Your task to perform on an android device: turn on notifications settings in the gmail app Image 0: 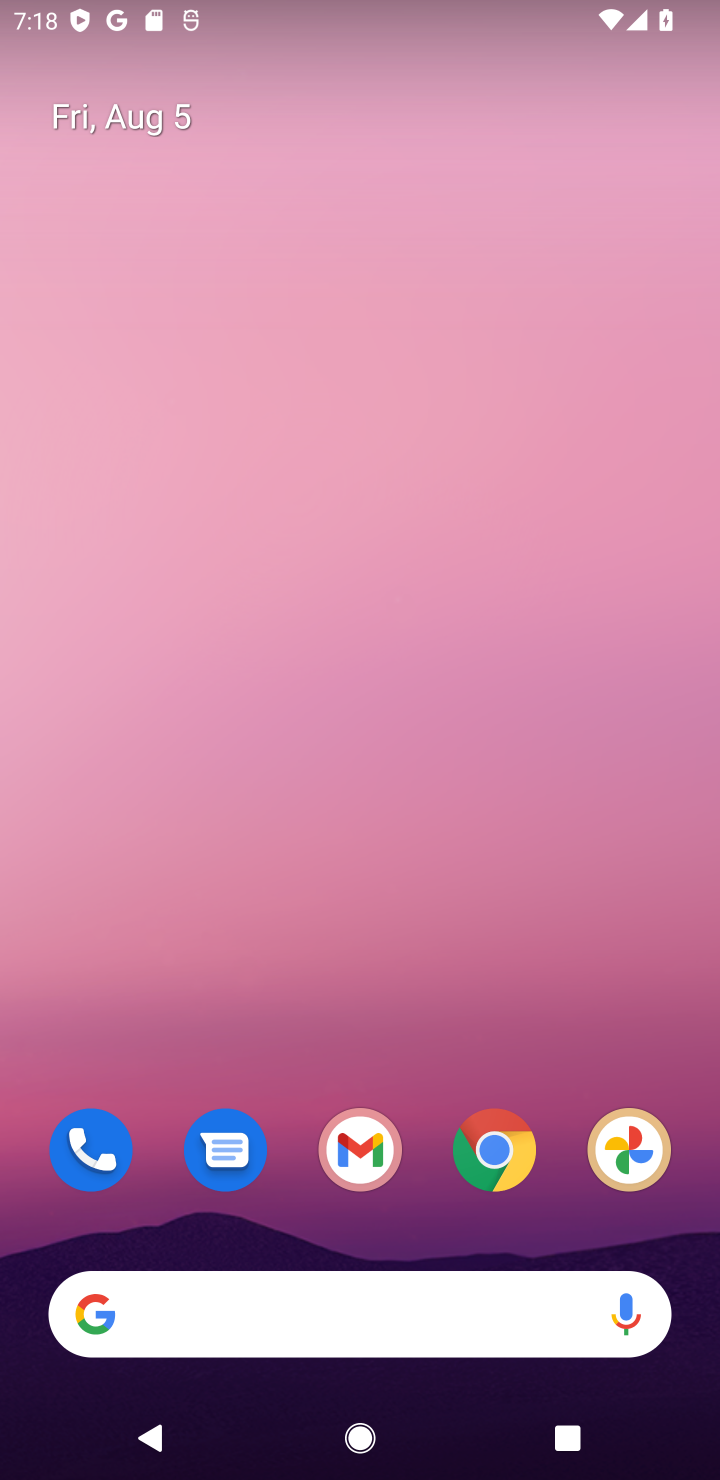
Step 0: press home button
Your task to perform on an android device: turn on notifications settings in the gmail app Image 1: 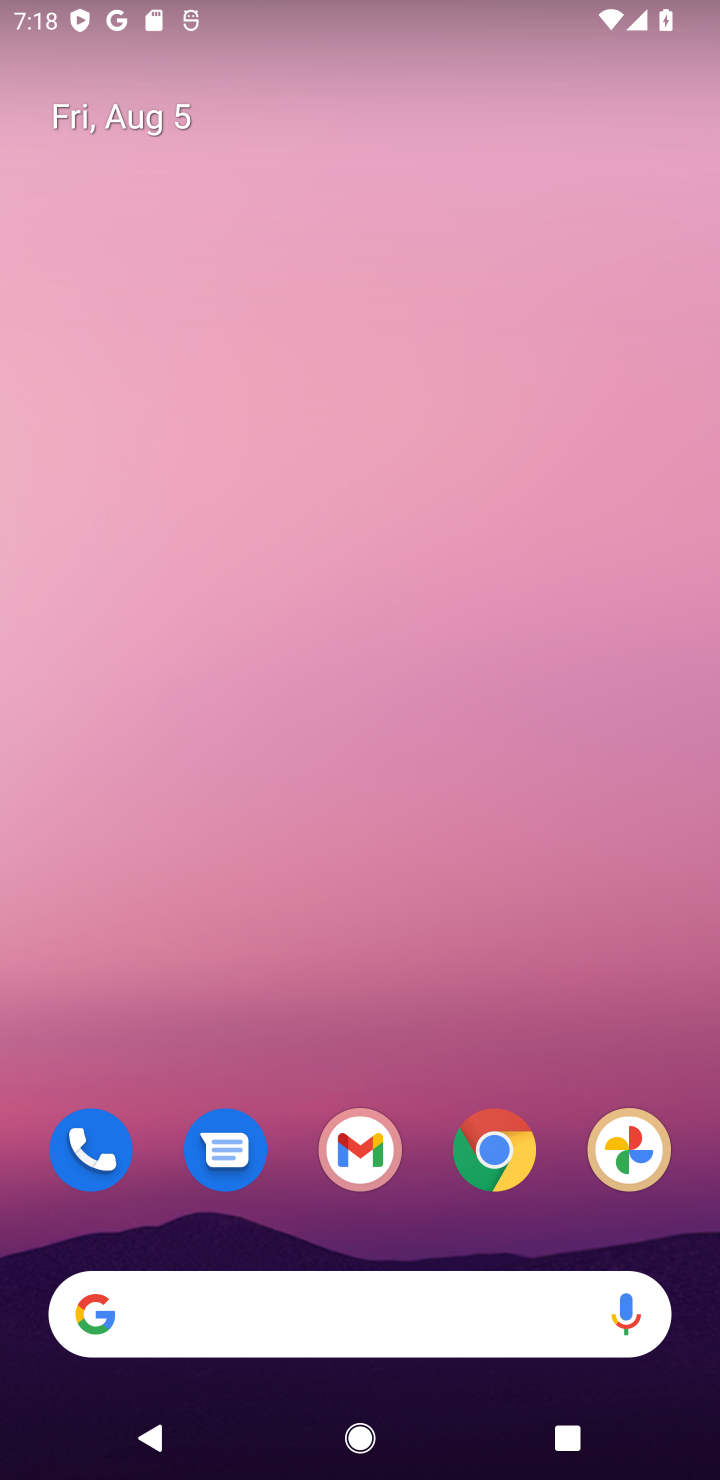
Step 1: drag from (321, 976) to (381, 375)
Your task to perform on an android device: turn on notifications settings in the gmail app Image 2: 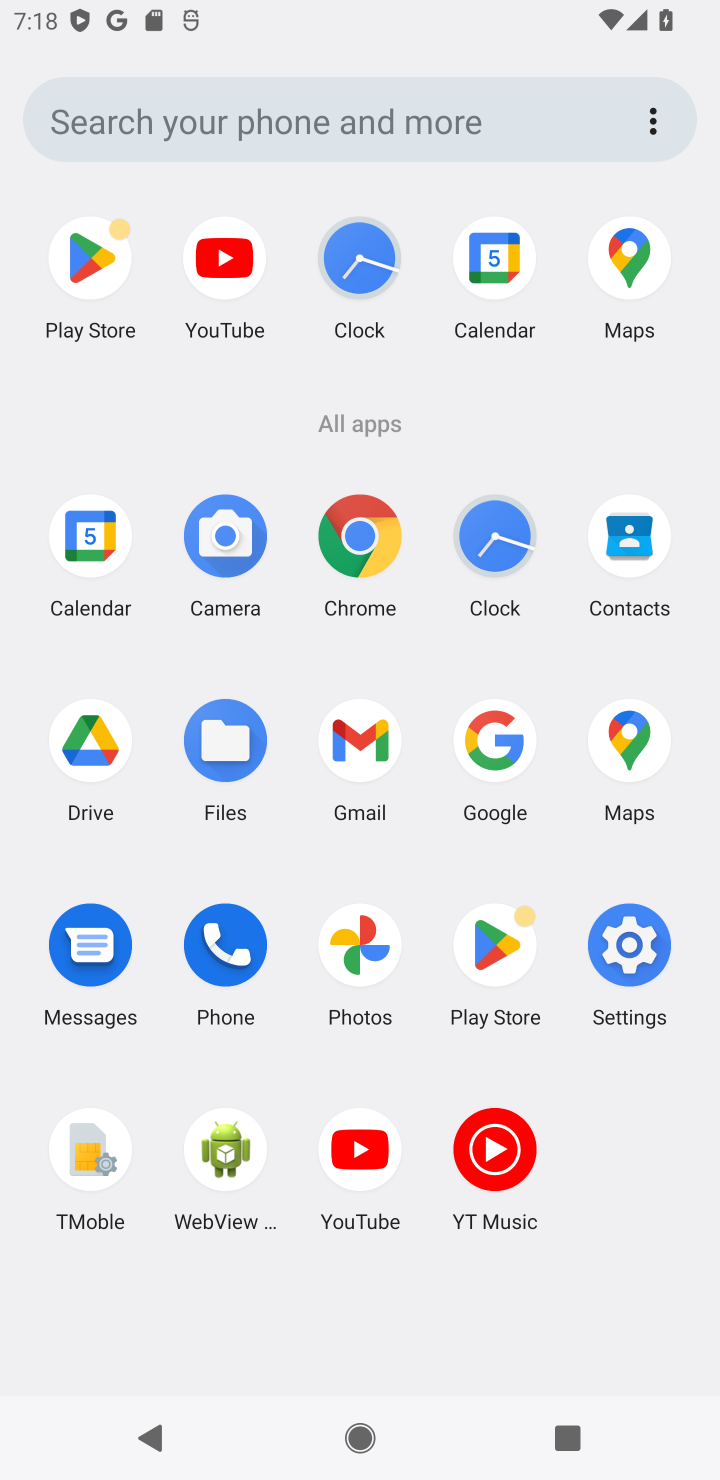
Step 2: click (377, 761)
Your task to perform on an android device: turn on notifications settings in the gmail app Image 3: 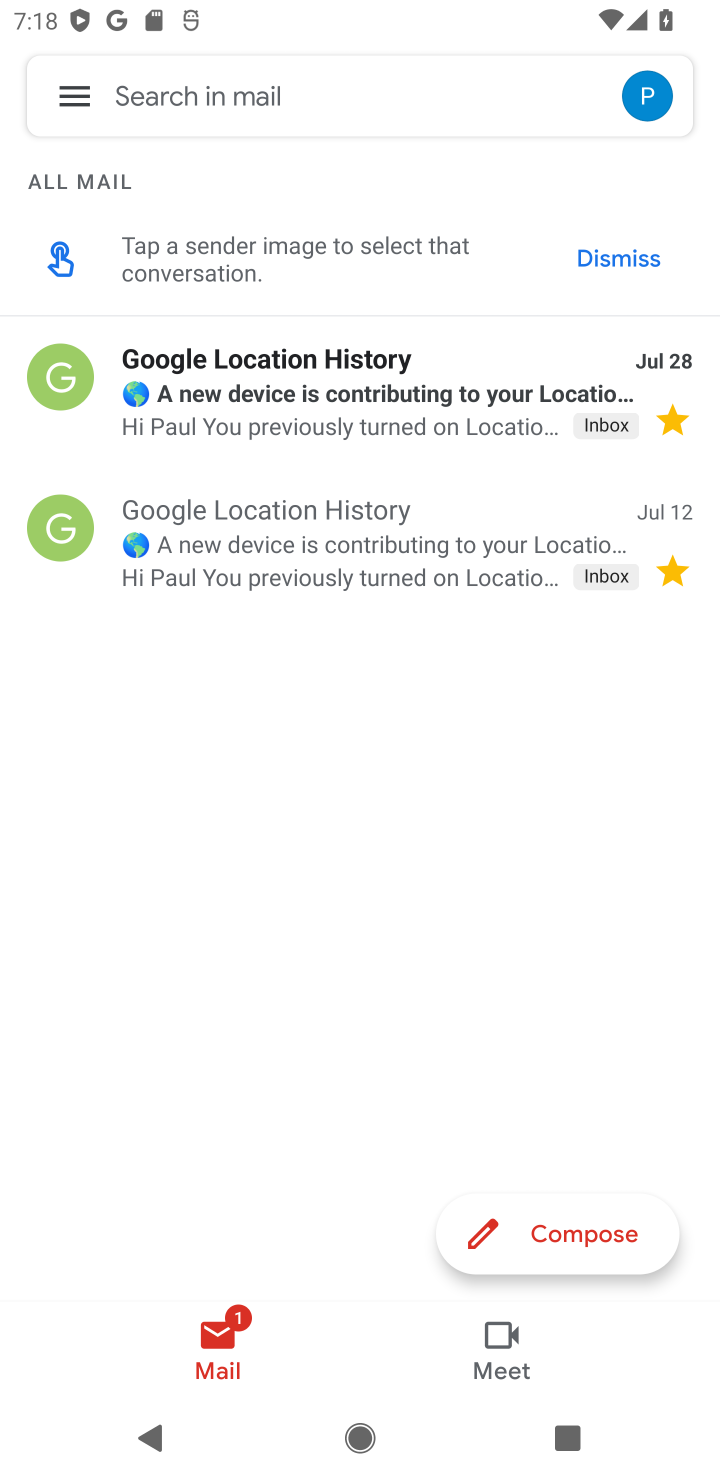
Step 3: click (71, 89)
Your task to perform on an android device: turn on notifications settings in the gmail app Image 4: 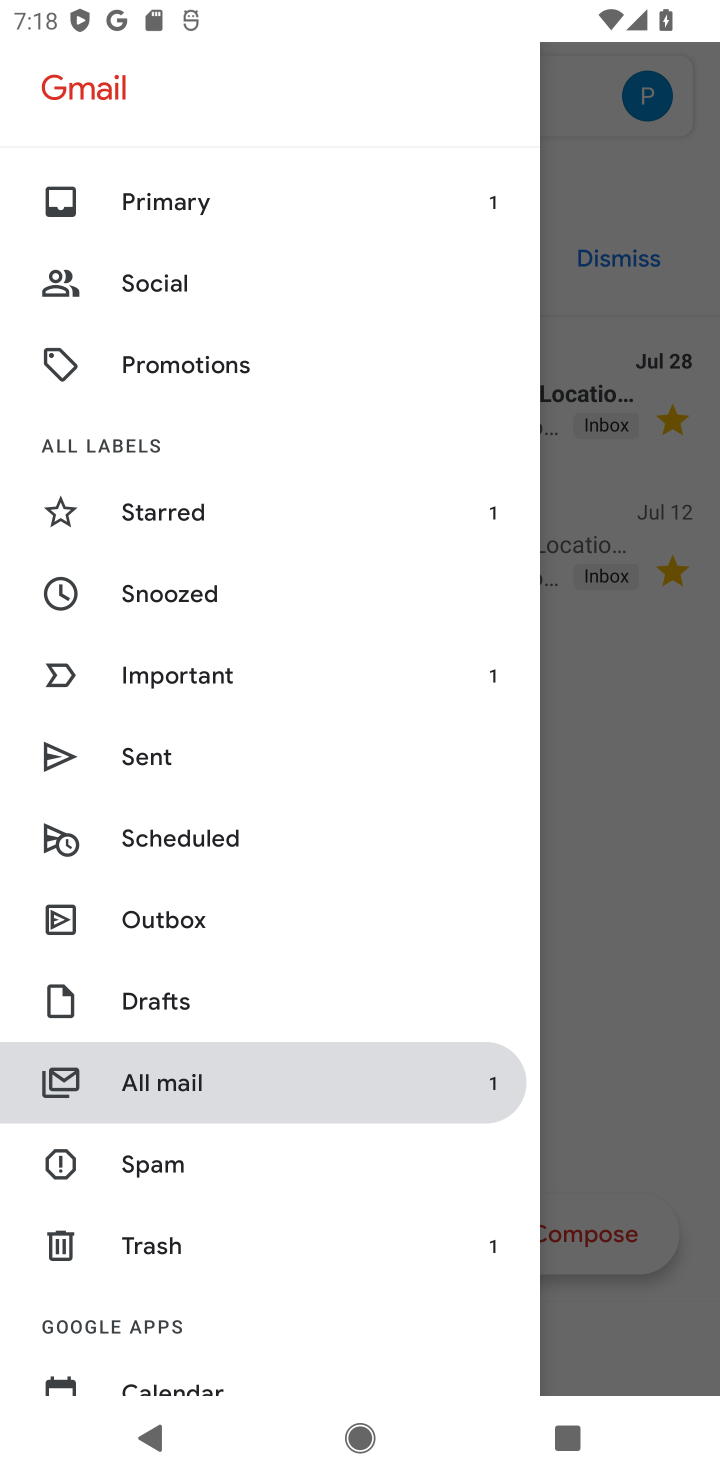
Step 4: drag from (271, 1235) to (319, 751)
Your task to perform on an android device: turn on notifications settings in the gmail app Image 5: 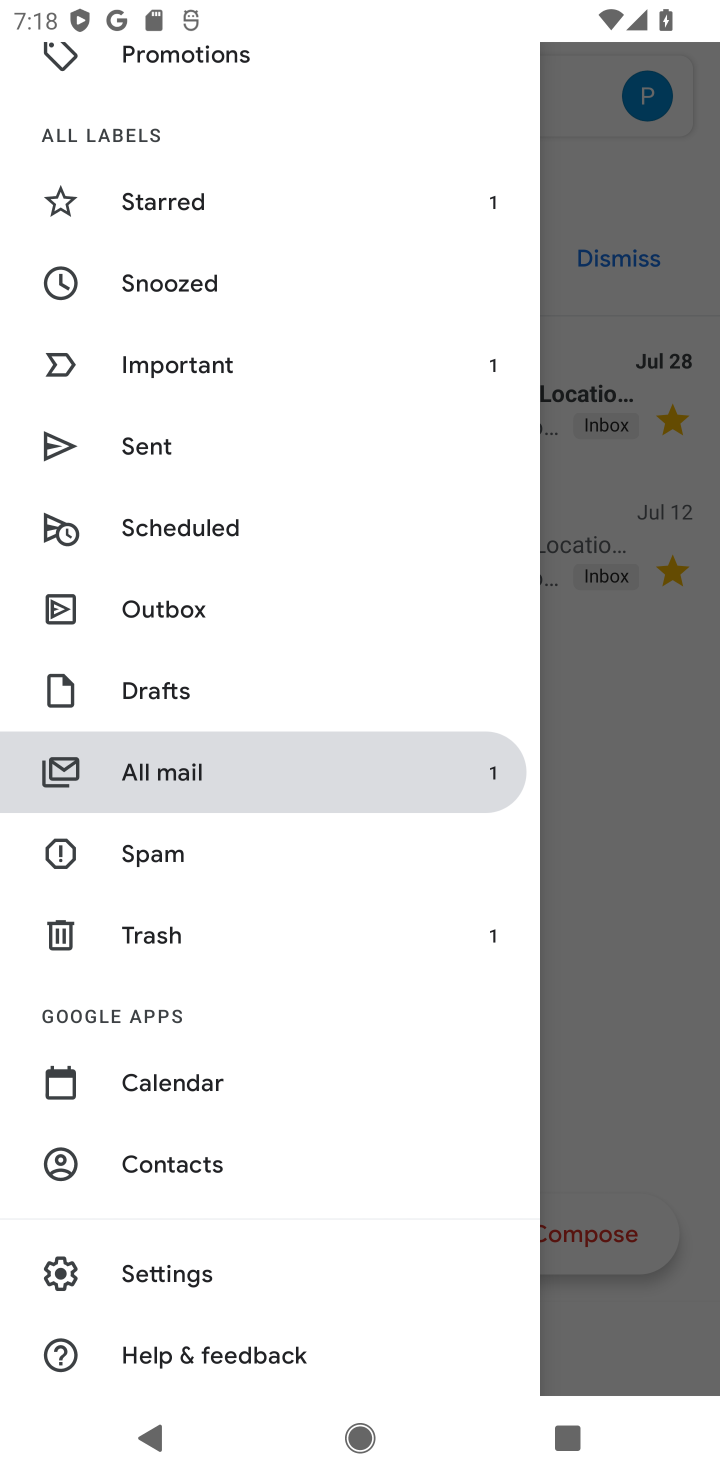
Step 5: drag from (374, 1124) to (381, 734)
Your task to perform on an android device: turn on notifications settings in the gmail app Image 6: 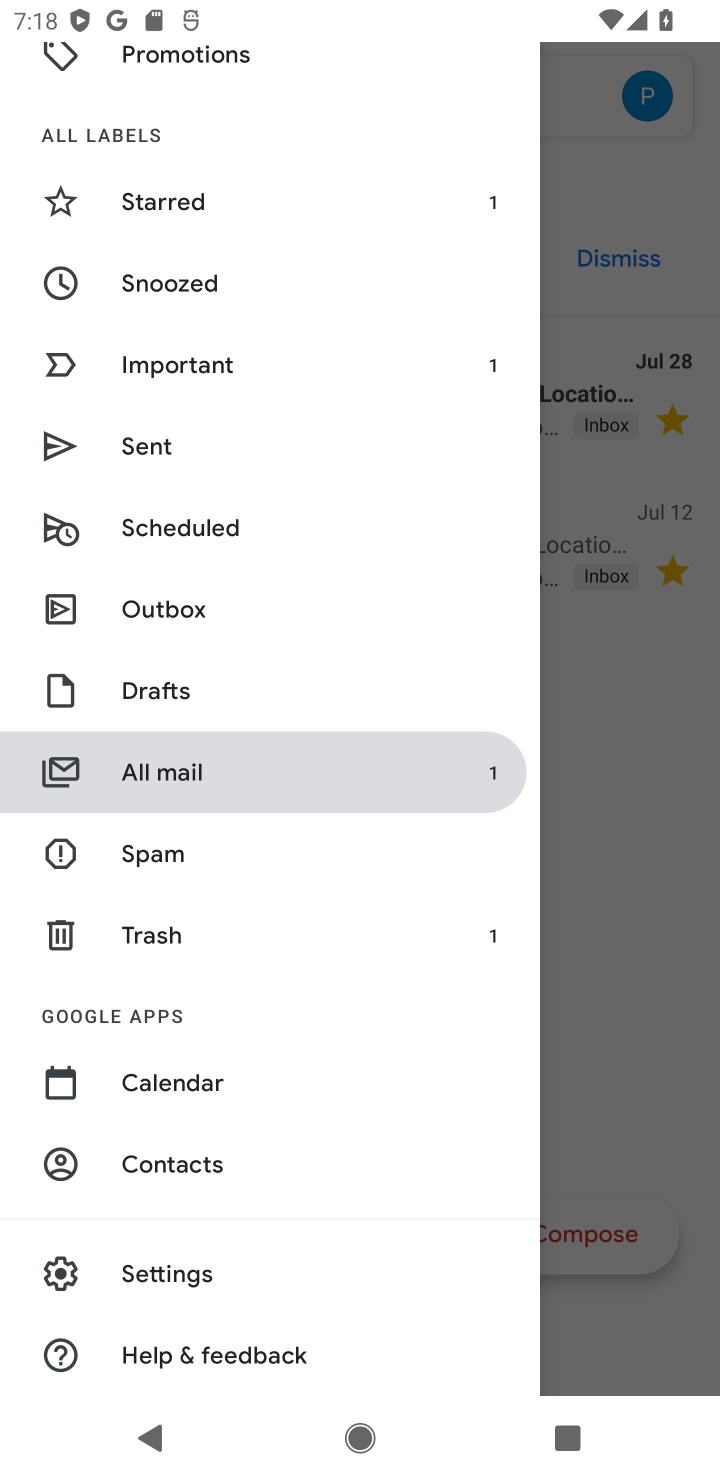
Step 6: click (212, 1271)
Your task to perform on an android device: turn on notifications settings in the gmail app Image 7: 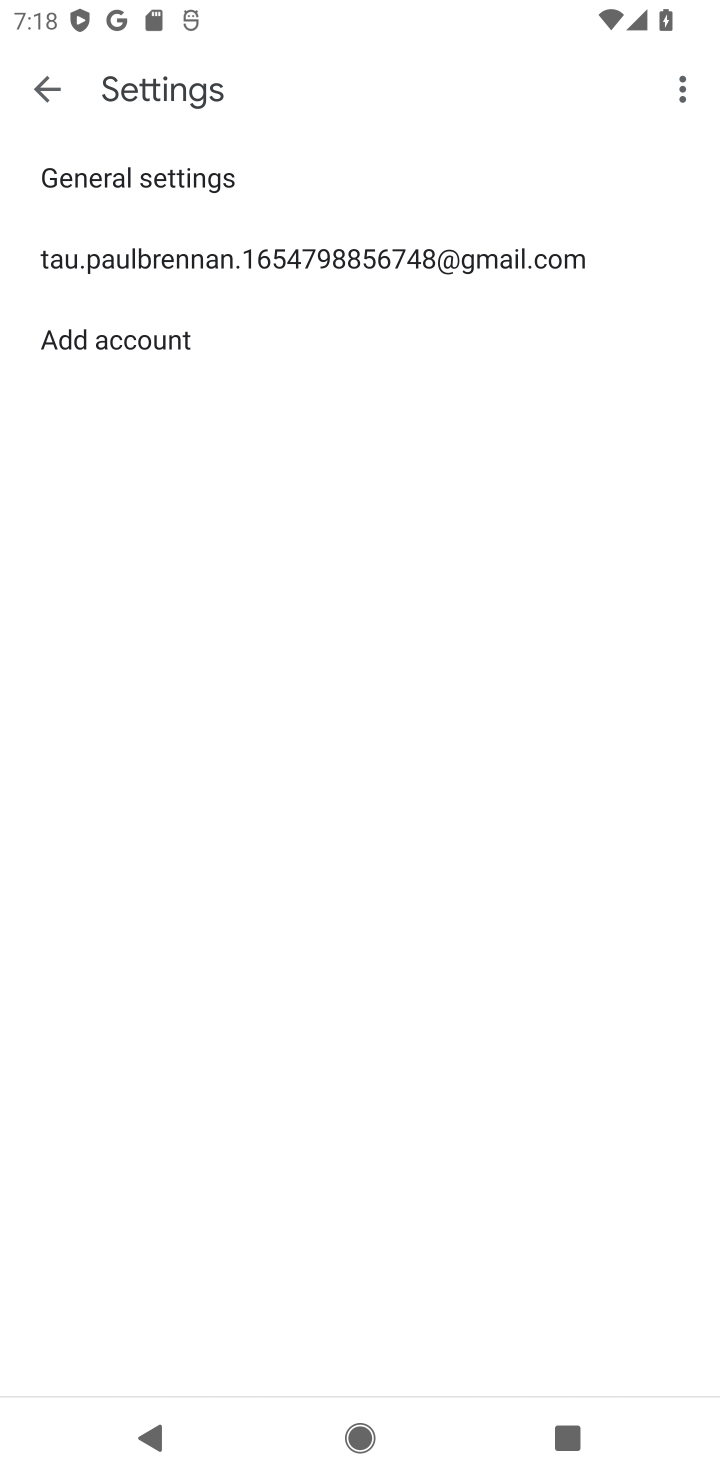
Step 7: click (347, 246)
Your task to perform on an android device: turn on notifications settings in the gmail app Image 8: 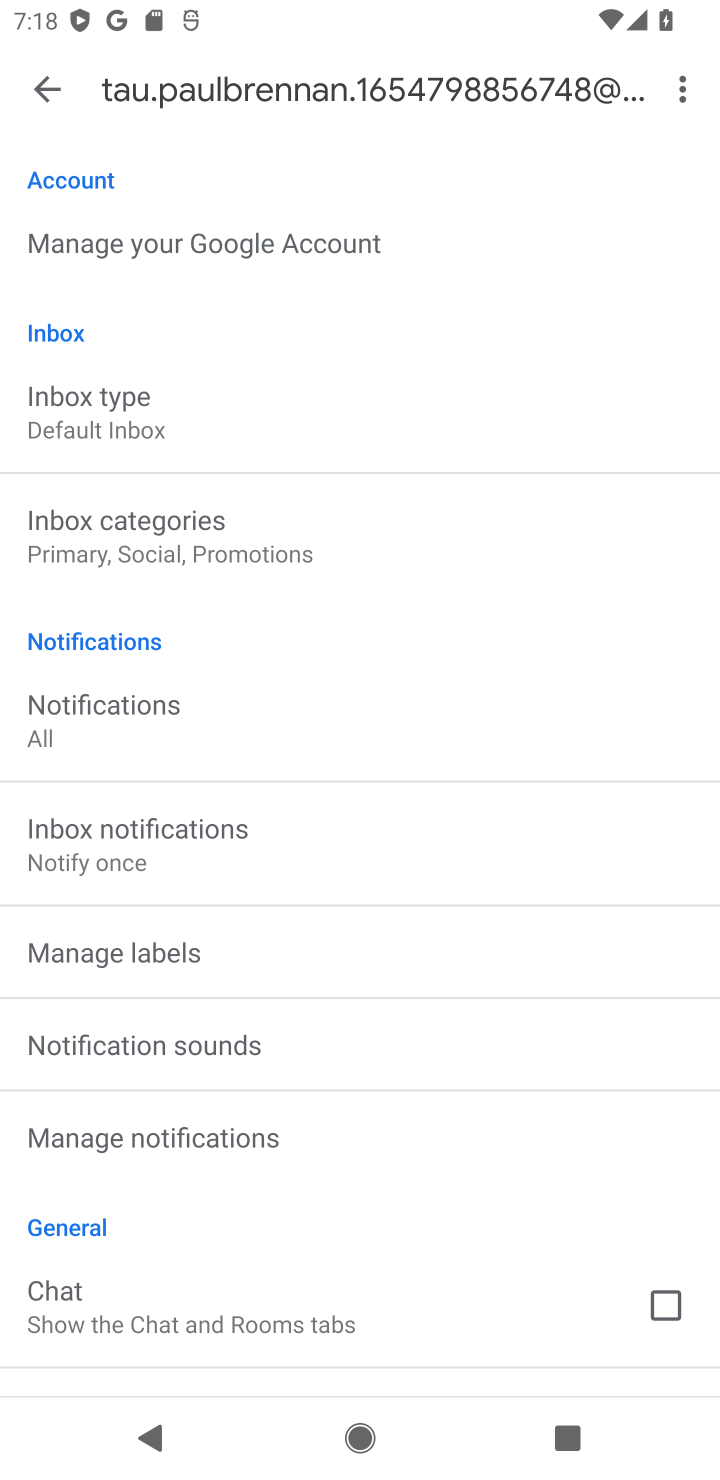
Step 8: drag from (445, 1092) to (445, 587)
Your task to perform on an android device: turn on notifications settings in the gmail app Image 9: 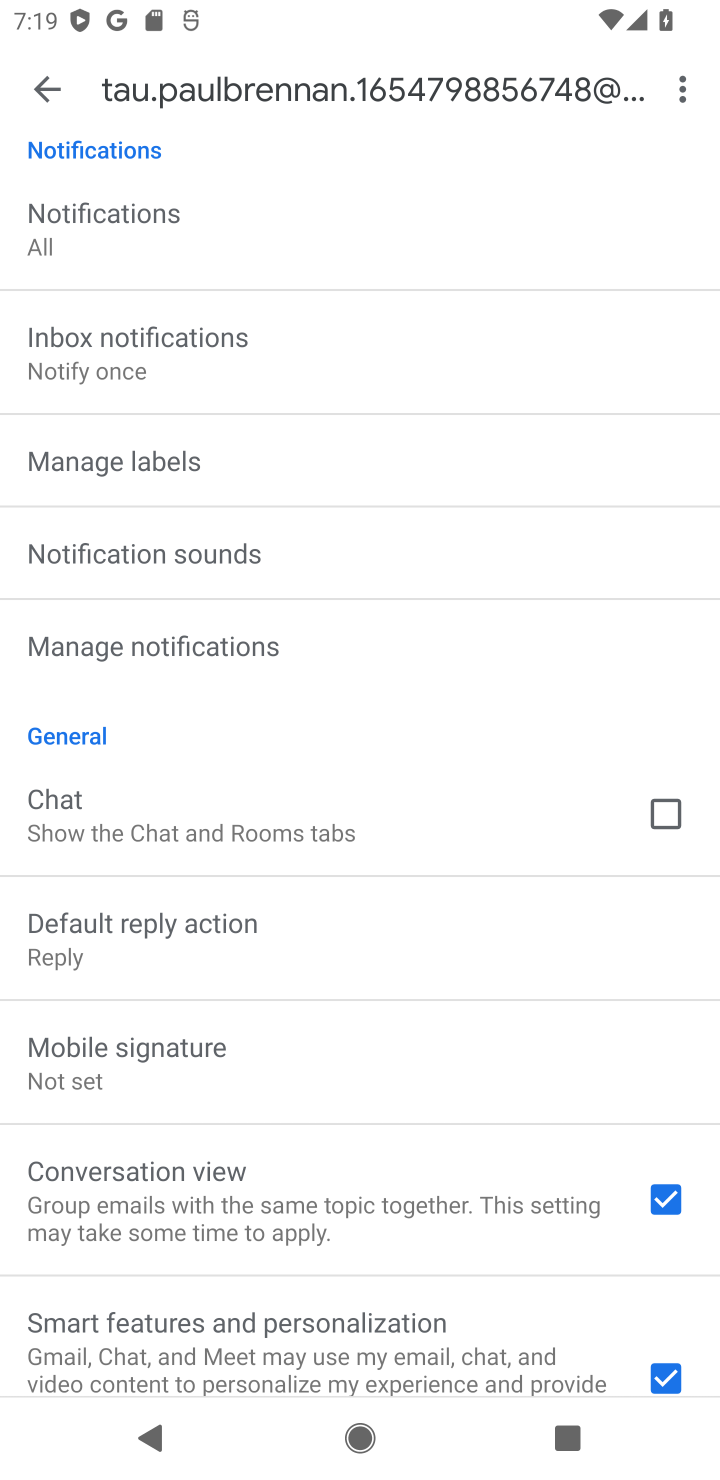
Step 9: drag from (504, 1064) to (499, 557)
Your task to perform on an android device: turn on notifications settings in the gmail app Image 10: 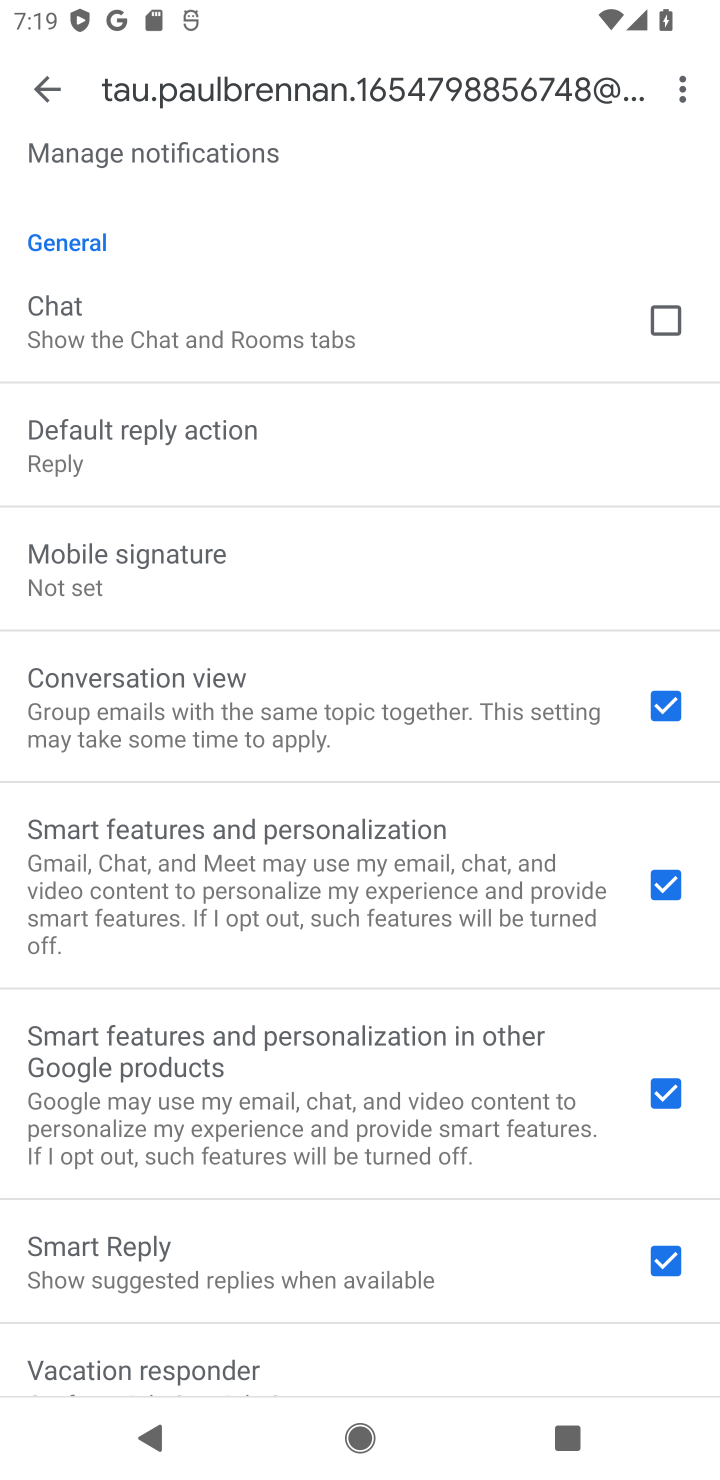
Step 10: drag from (422, 996) to (451, 453)
Your task to perform on an android device: turn on notifications settings in the gmail app Image 11: 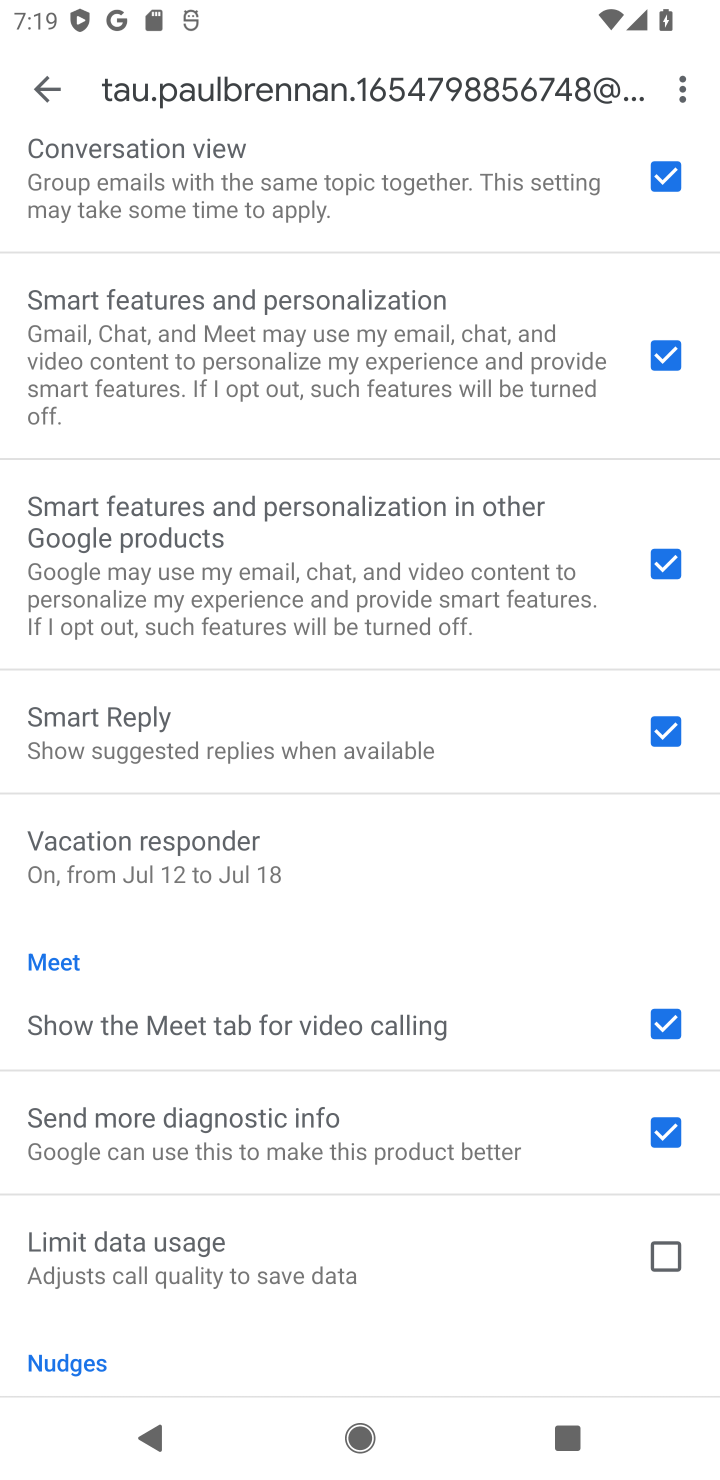
Step 11: drag from (464, 988) to (487, 607)
Your task to perform on an android device: turn on notifications settings in the gmail app Image 12: 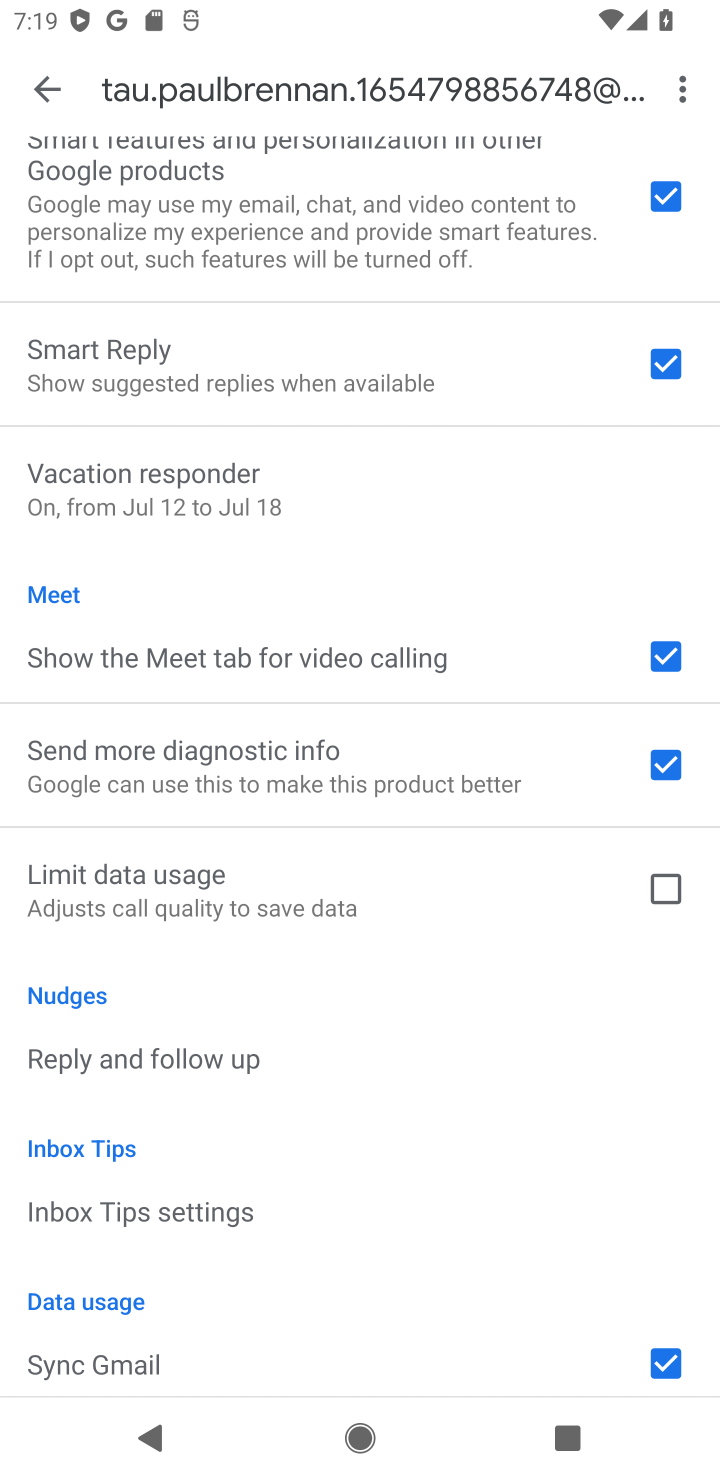
Step 12: drag from (442, 1131) to (473, 745)
Your task to perform on an android device: turn on notifications settings in the gmail app Image 13: 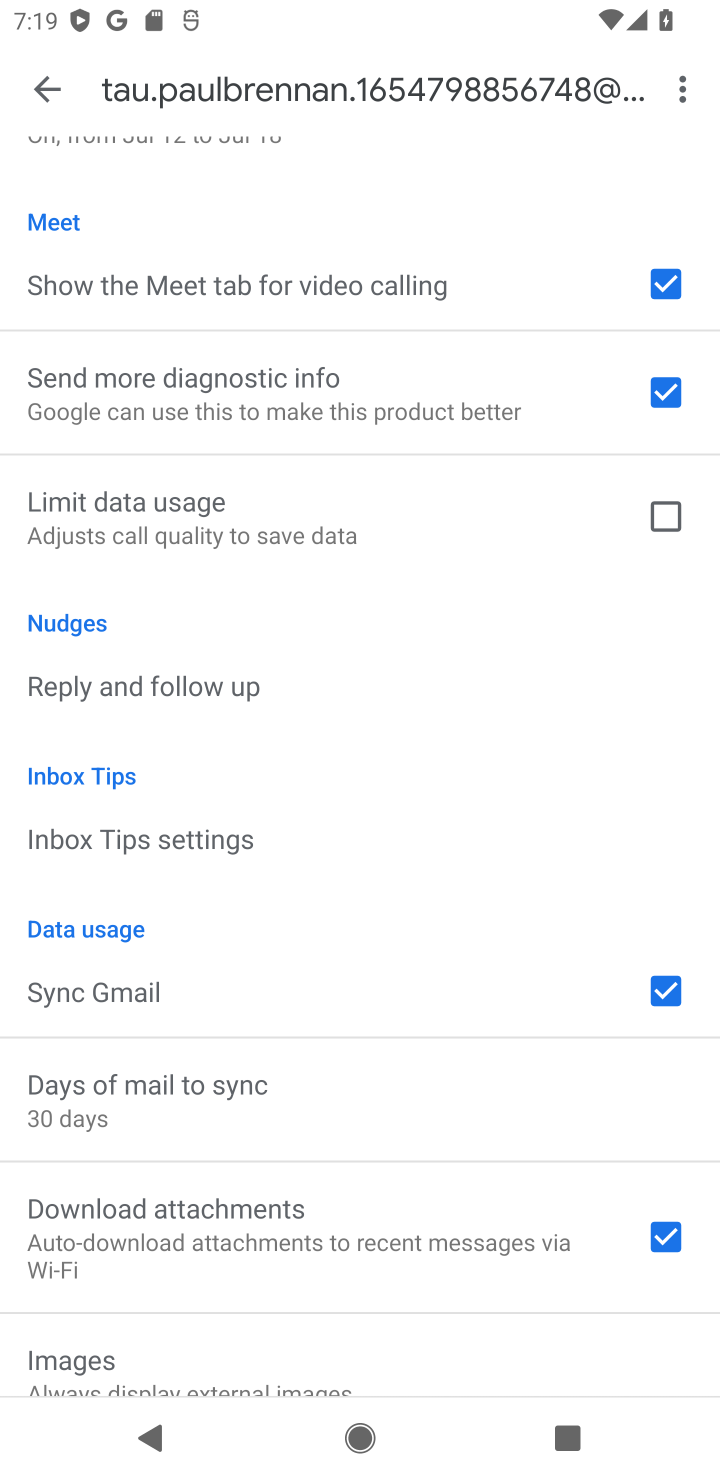
Step 13: drag from (448, 464) to (461, 824)
Your task to perform on an android device: turn on notifications settings in the gmail app Image 14: 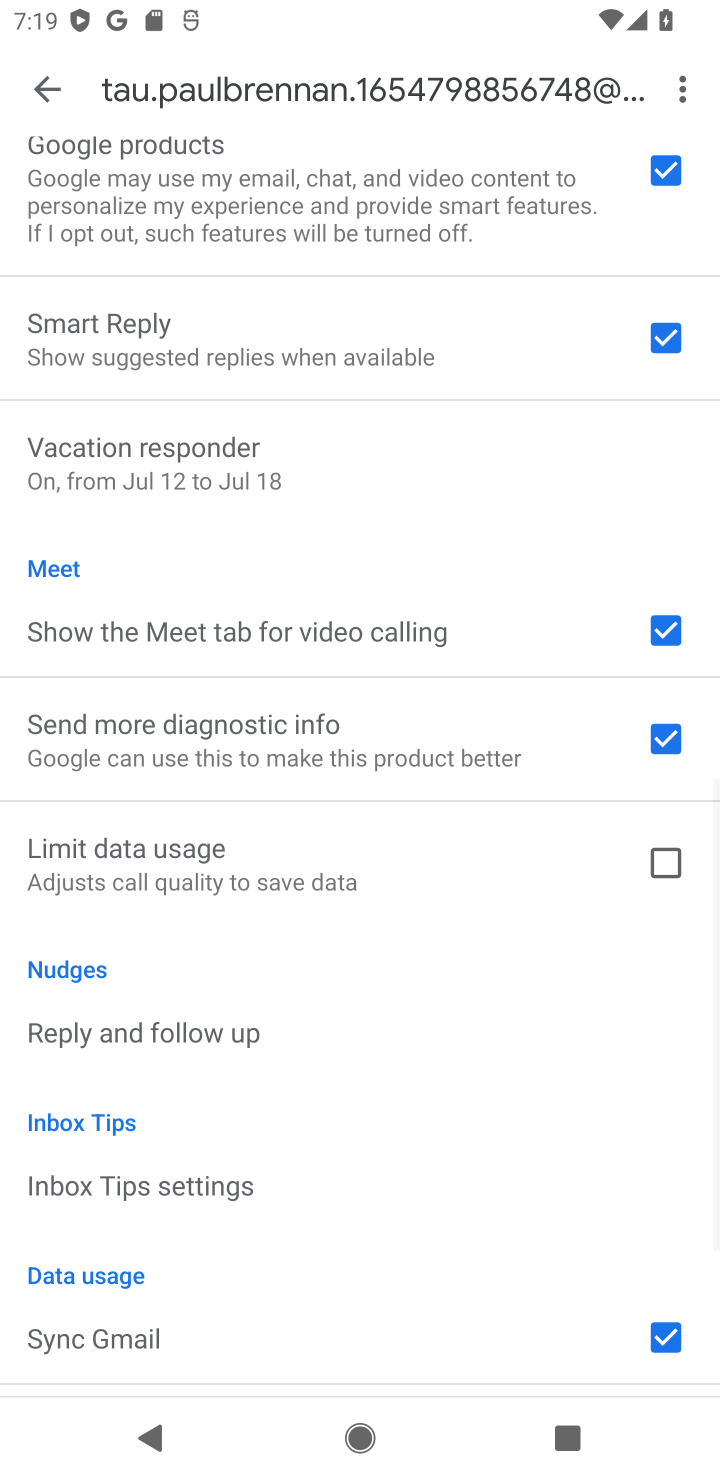
Step 14: drag from (526, 386) to (539, 737)
Your task to perform on an android device: turn on notifications settings in the gmail app Image 15: 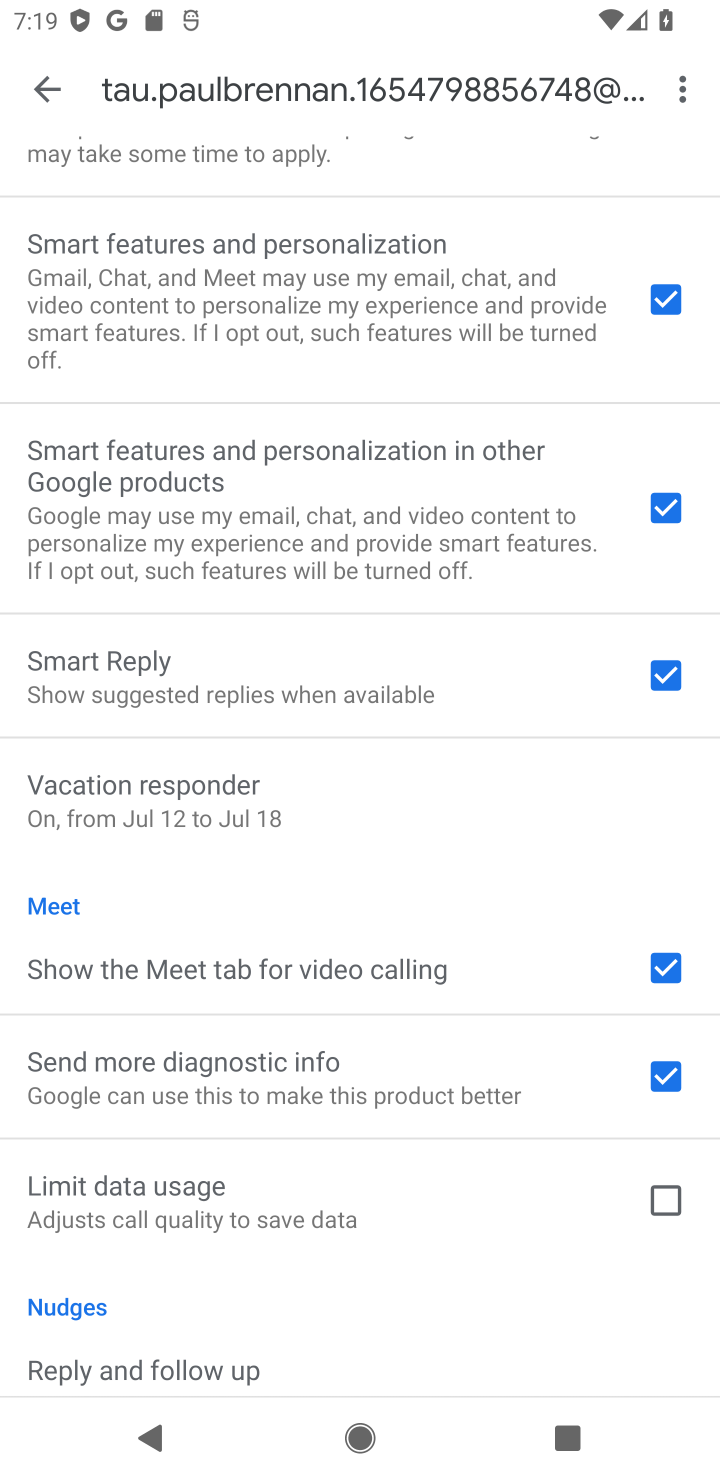
Step 15: drag from (506, 268) to (519, 712)
Your task to perform on an android device: turn on notifications settings in the gmail app Image 16: 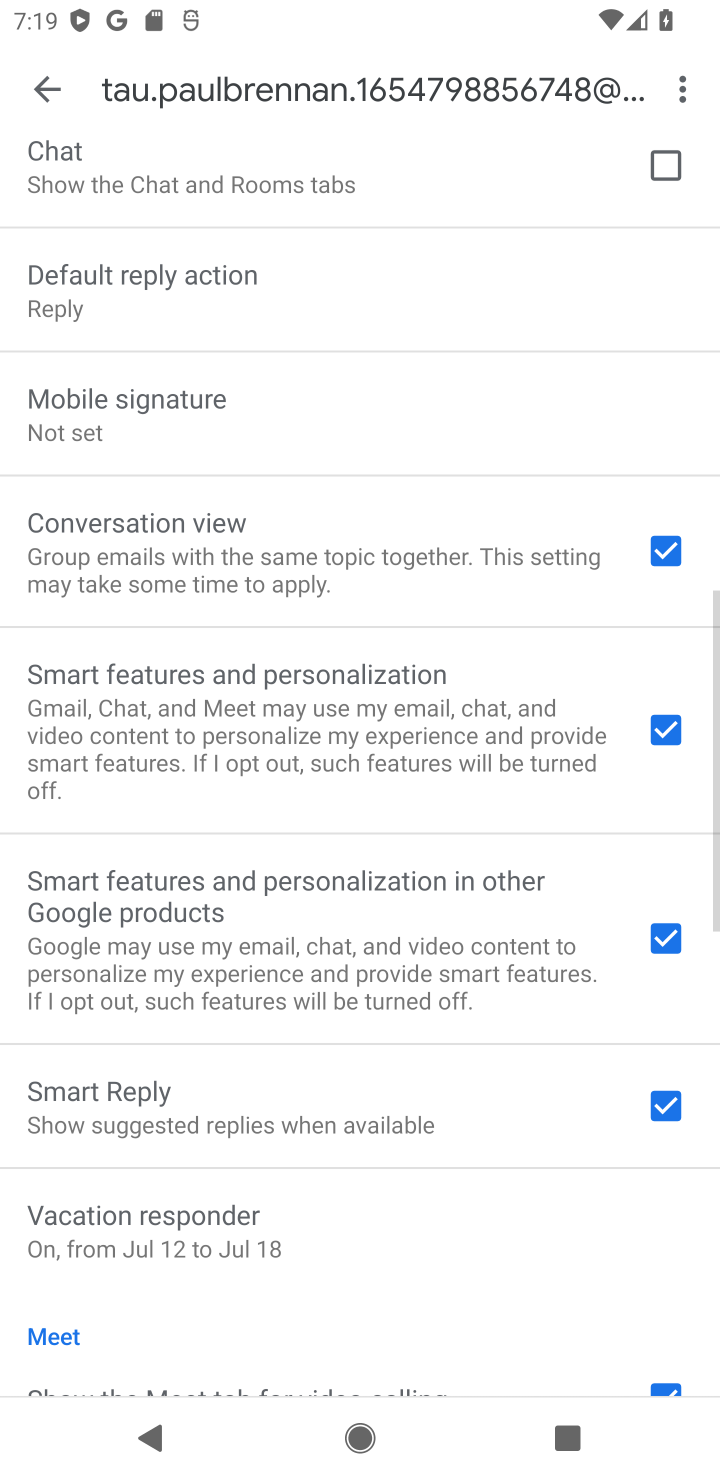
Step 16: drag from (480, 181) to (484, 628)
Your task to perform on an android device: turn on notifications settings in the gmail app Image 17: 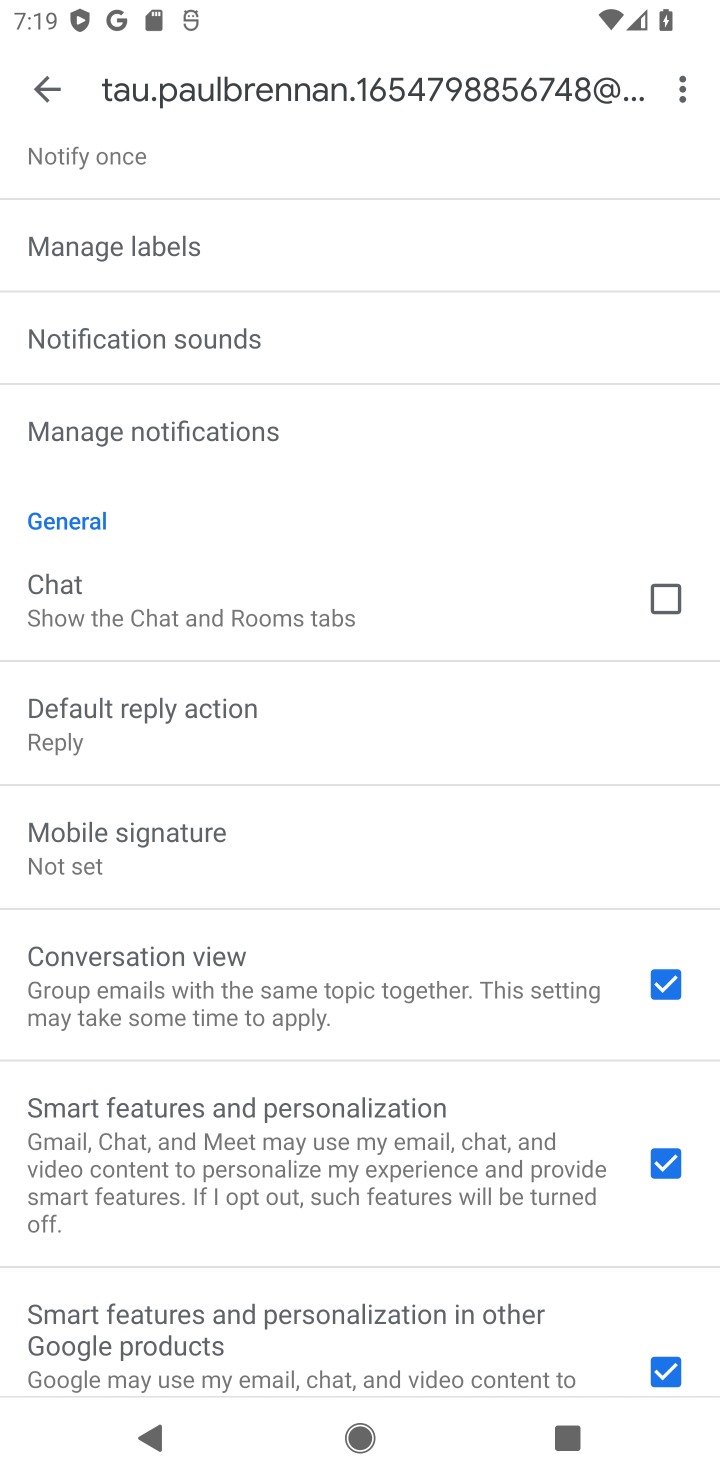
Step 17: drag from (468, 241) to (463, 722)
Your task to perform on an android device: turn on notifications settings in the gmail app Image 18: 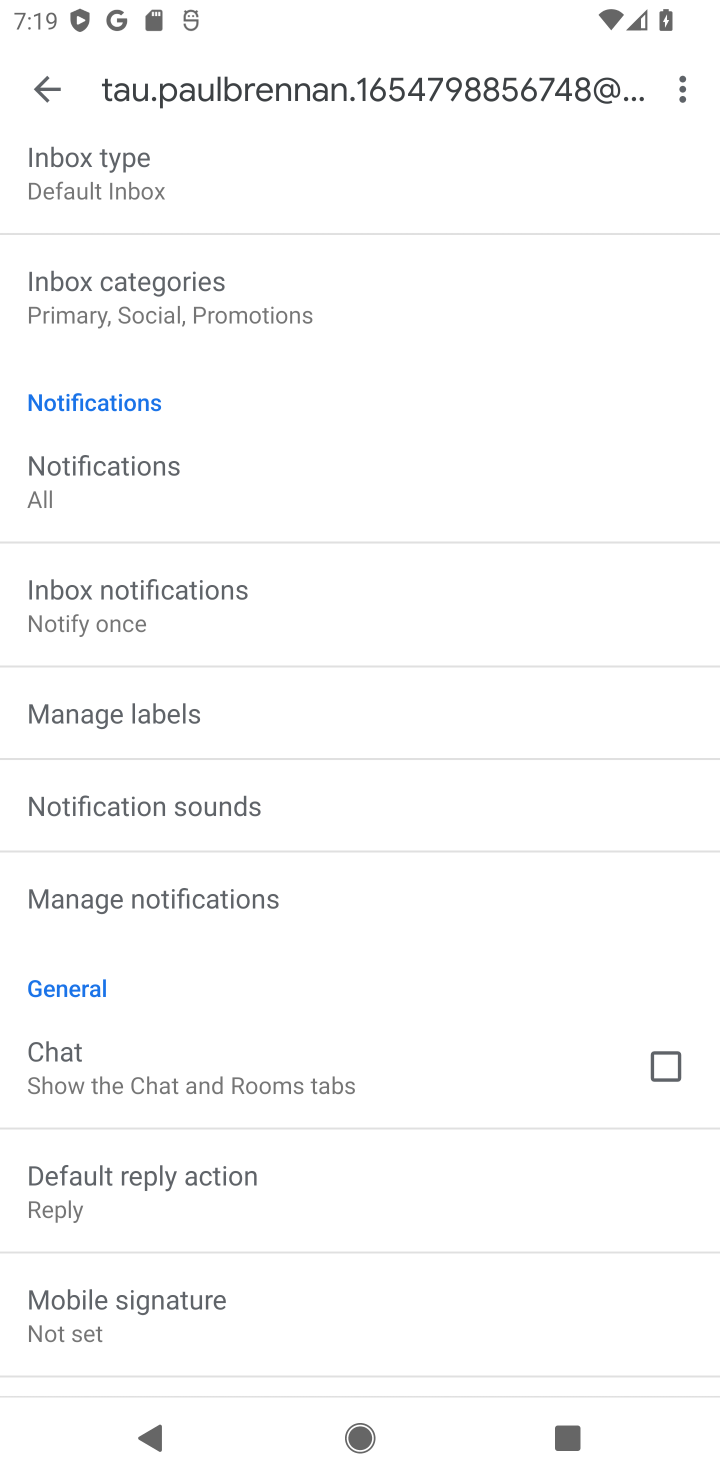
Step 18: click (390, 888)
Your task to perform on an android device: turn on notifications settings in the gmail app Image 19: 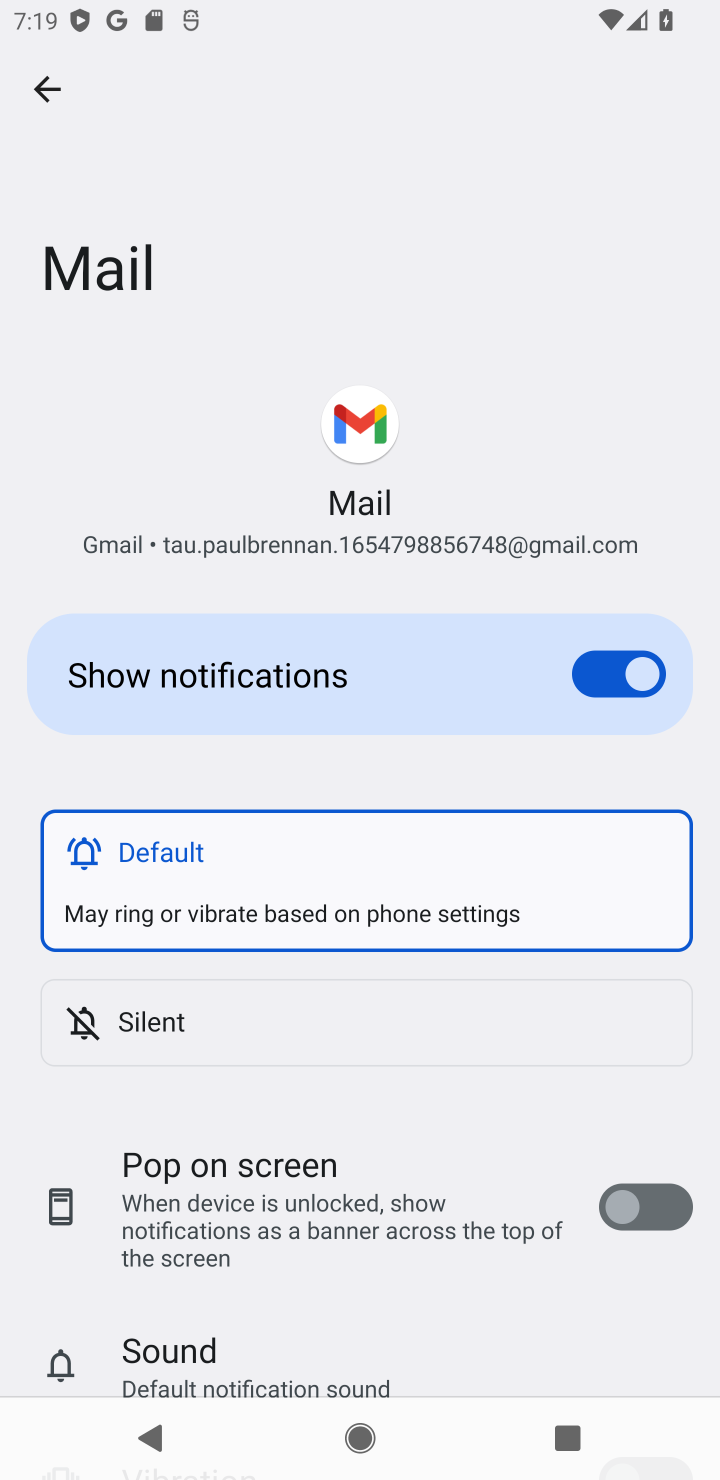
Step 19: task complete